Your task to perform on an android device: open app "LiveIn - Share Your Moment" Image 0: 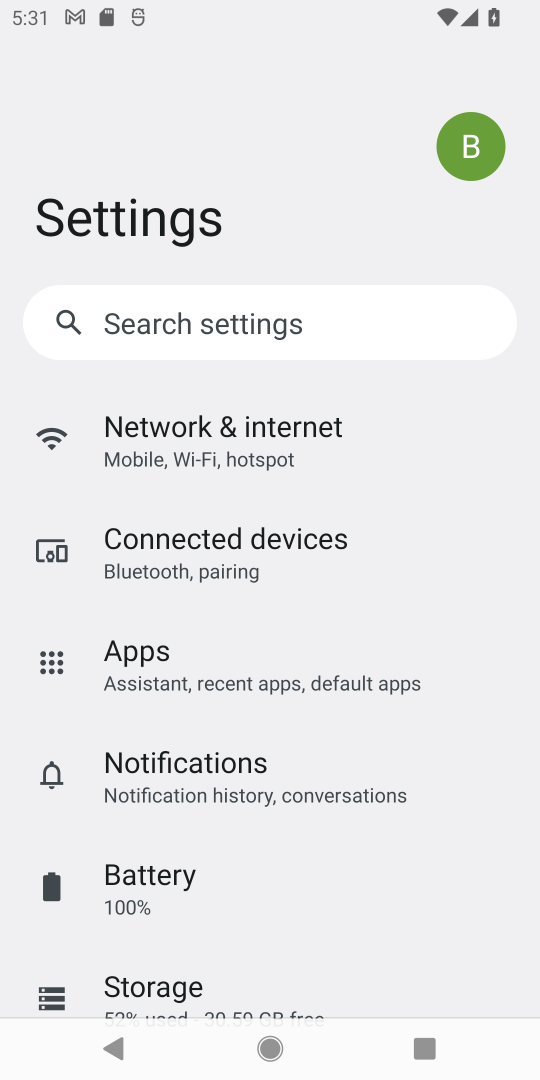
Step 0: press back button
Your task to perform on an android device: open app "LiveIn - Share Your Moment" Image 1: 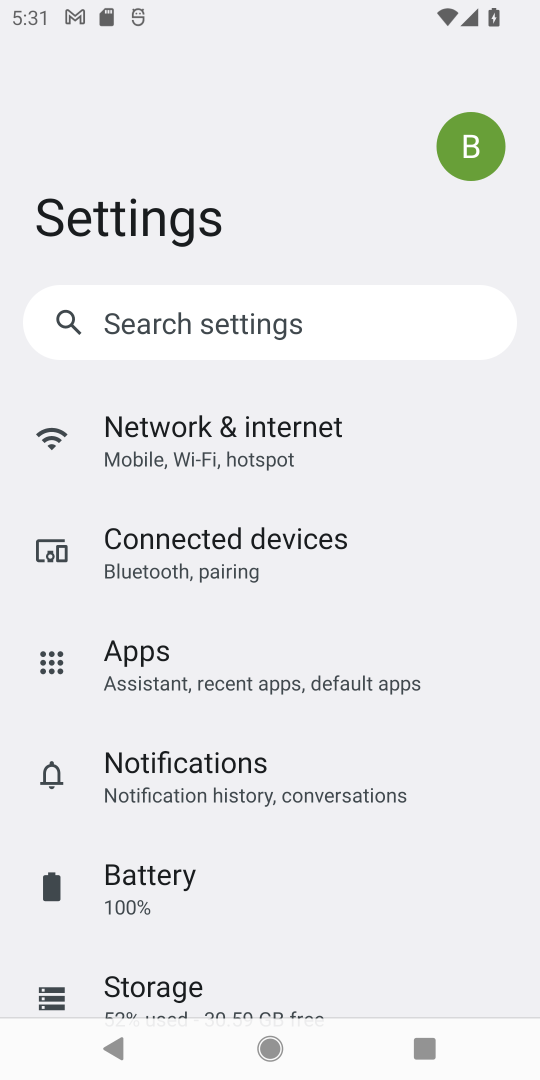
Step 1: press back button
Your task to perform on an android device: open app "LiveIn - Share Your Moment" Image 2: 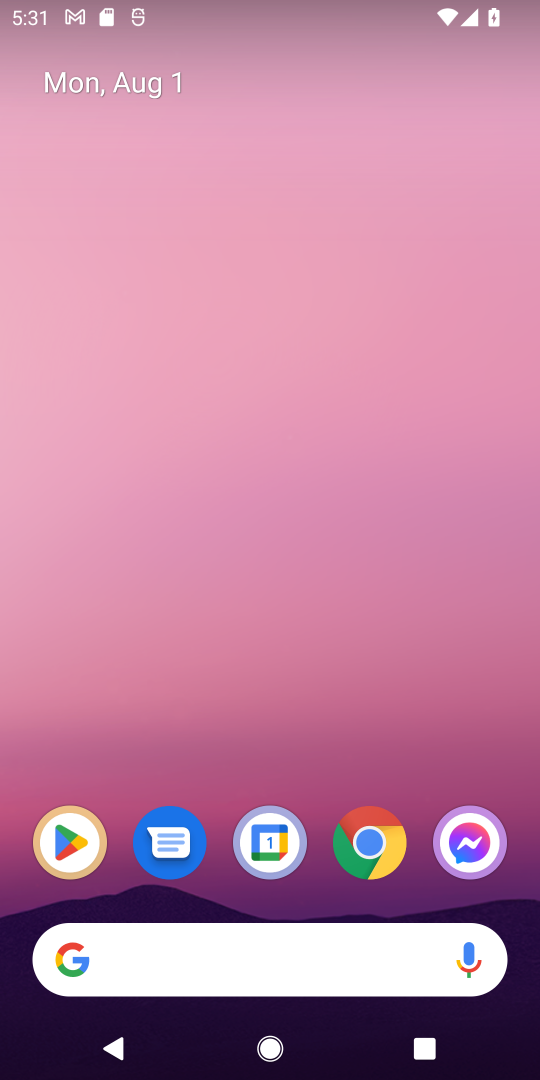
Step 2: drag from (314, 609) to (287, 135)
Your task to perform on an android device: open app "LiveIn - Share Your Moment" Image 3: 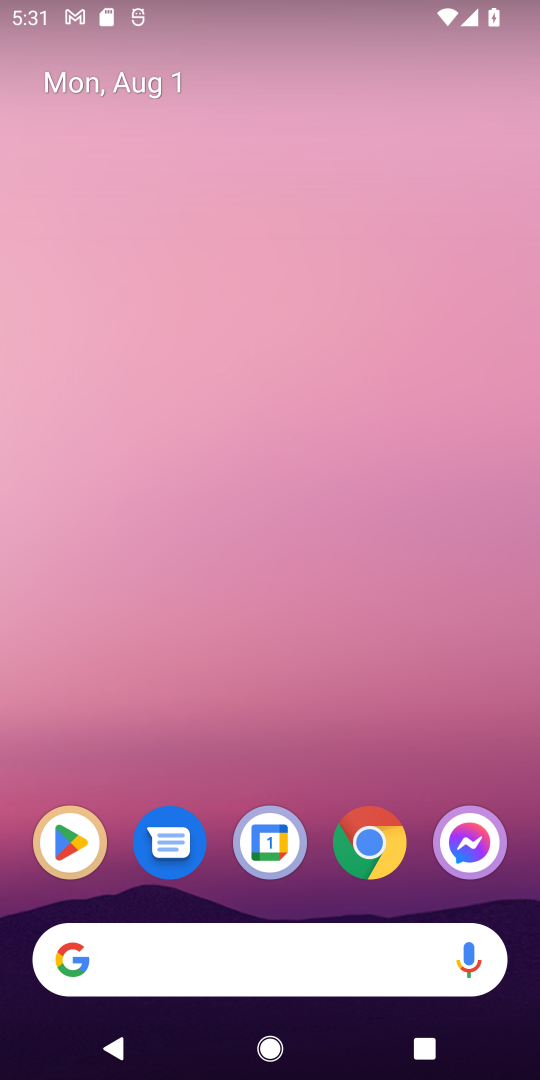
Step 3: drag from (445, 711) to (522, 624)
Your task to perform on an android device: open app "LiveIn - Share Your Moment" Image 4: 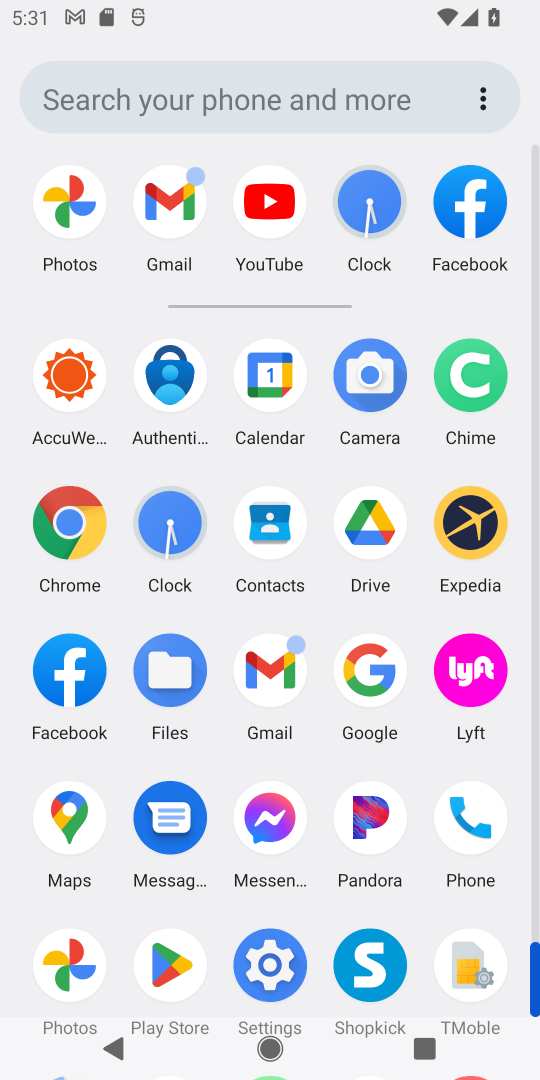
Step 4: click (158, 945)
Your task to perform on an android device: open app "LiveIn - Share Your Moment" Image 5: 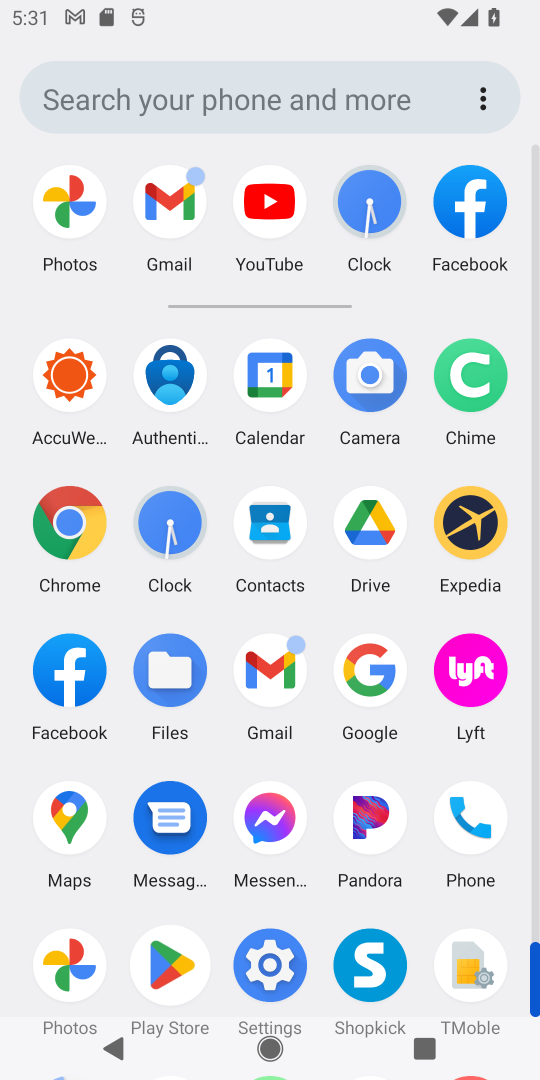
Step 5: click (163, 947)
Your task to perform on an android device: open app "LiveIn - Share Your Moment" Image 6: 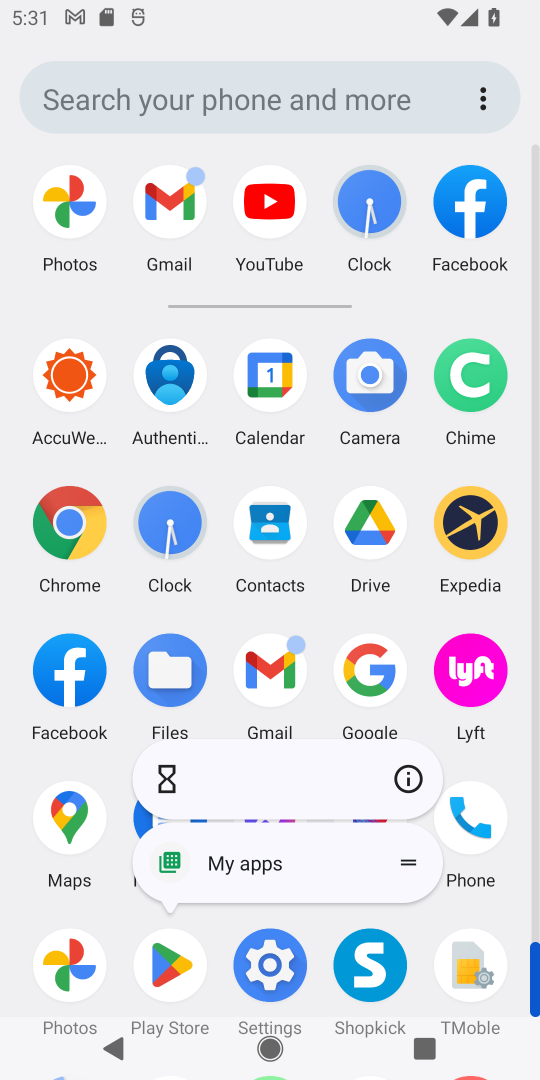
Step 6: click (176, 951)
Your task to perform on an android device: open app "LiveIn - Share Your Moment" Image 7: 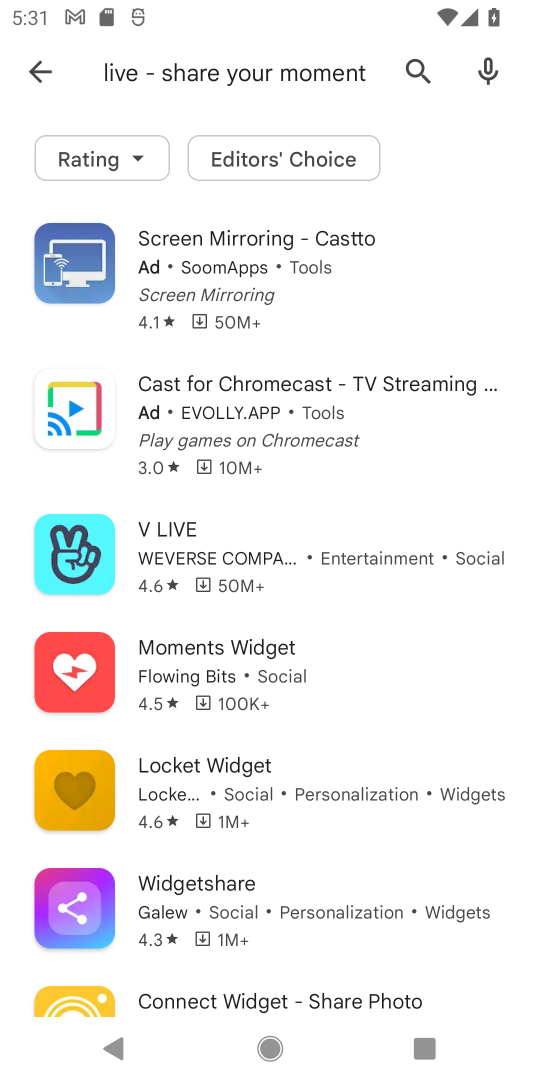
Step 7: click (46, 75)
Your task to perform on an android device: open app "LiveIn - Share Your Moment" Image 8: 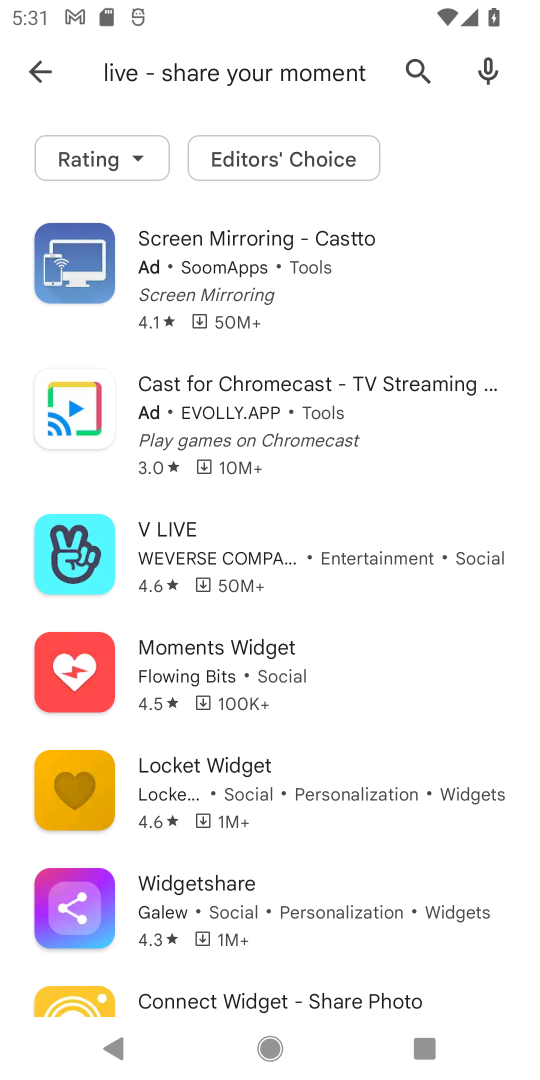
Step 8: click (50, 73)
Your task to perform on an android device: open app "LiveIn - Share Your Moment" Image 9: 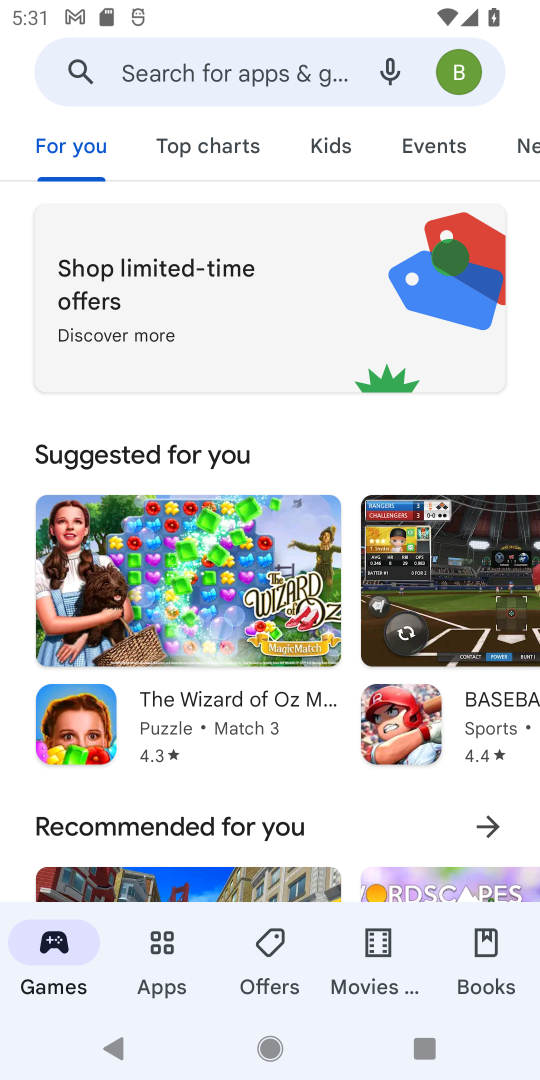
Step 9: click (156, 60)
Your task to perform on an android device: open app "LiveIn - Share Your Moment" Image 10: 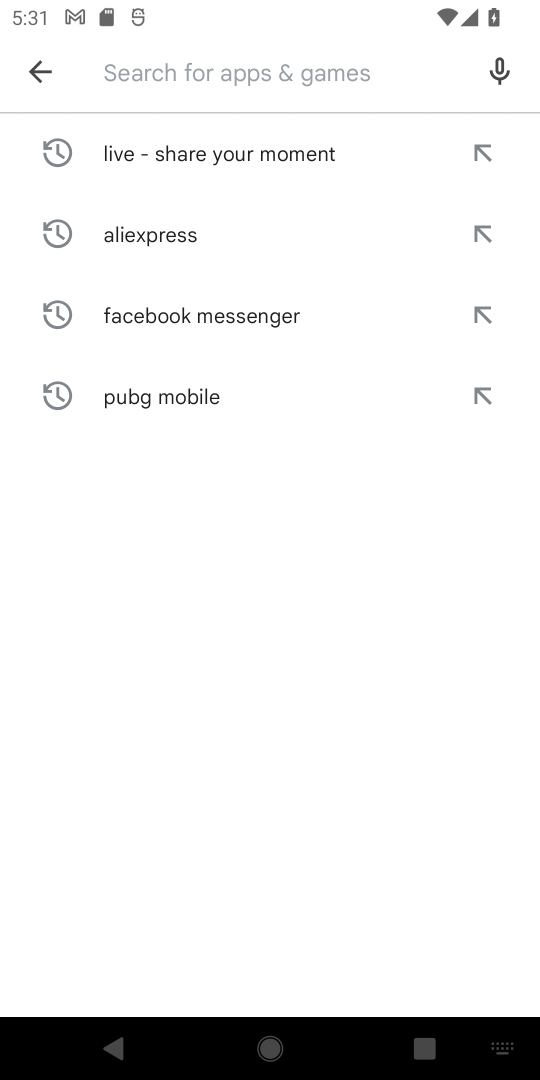
Step 10: click (263, 151)
Your task to perform on an android device: open app "LiveIn - Share Your Moment" Image 11: 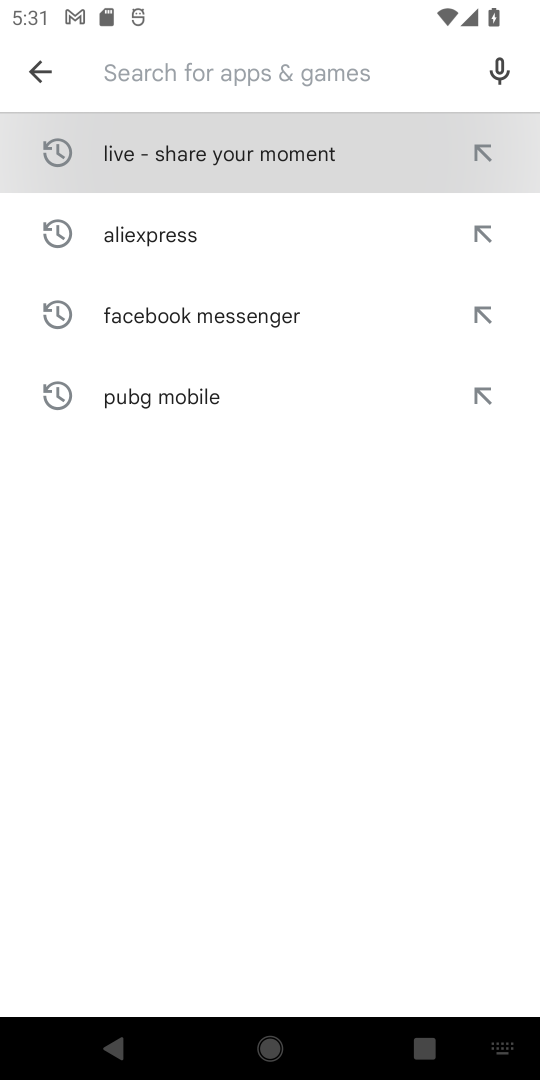
Step 11: click (270, 159)
Your task to perform on an android device: open app "LiveIn - Share Your Moment" Image 12: 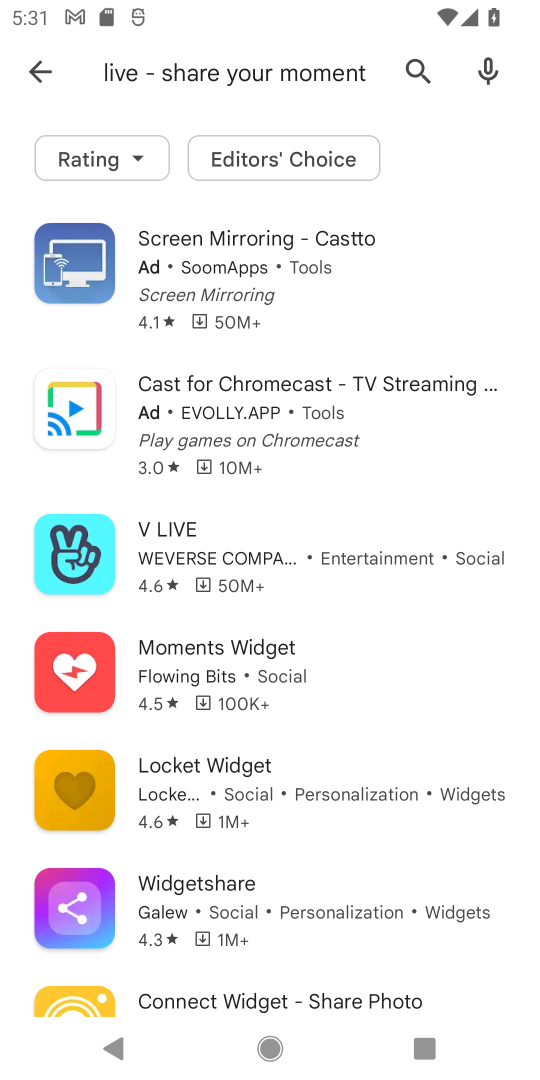
Step 12: task complete